Your task to perform on an android device: see creations saved in the google photos Image 0: 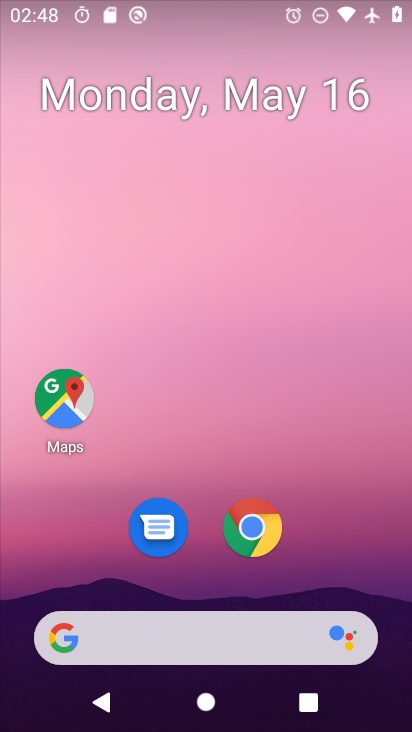
Step 0: drag from (145, 633) to (337, 189)
Your task to perform on an android device: see creations saved in the google photos Image 1: 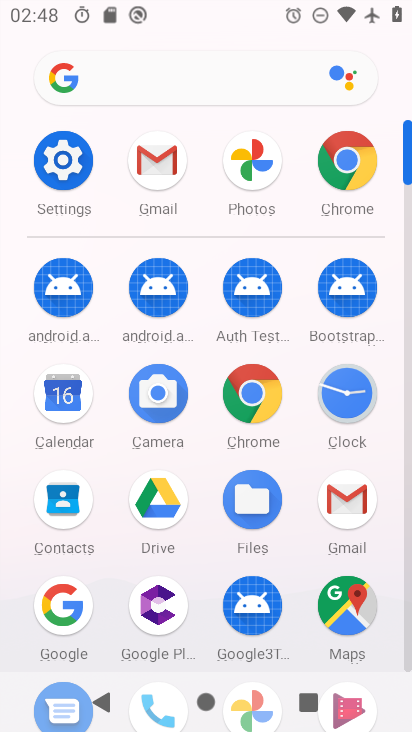
Step 1: drag from (208, 622) to (359, 273)
Your task to perform on an android device: see creations saved in the google photos Image 2: 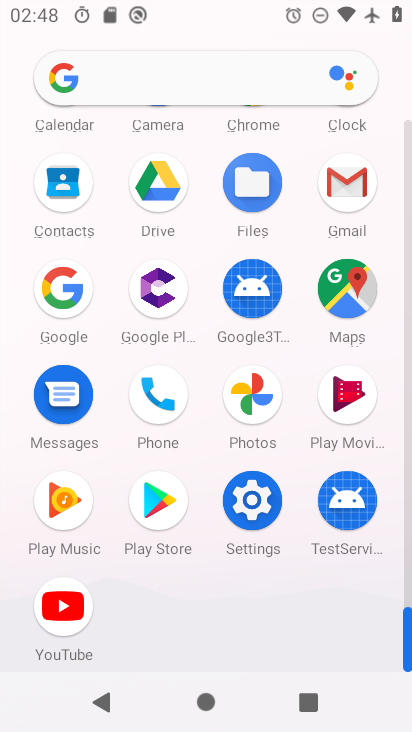
Step 2: click (254, 403)
Your task to perform on an android device: see creations saved in the google photos Image 3: 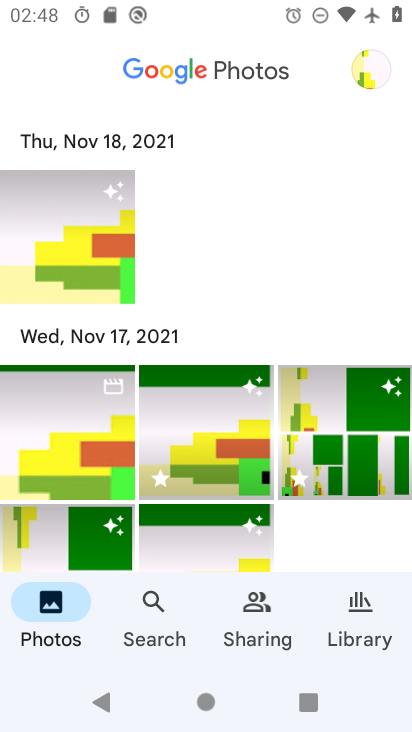
Step 3: click (147, 640)
Your task to perform on an android device: see creations saved in the google photos Image 4: 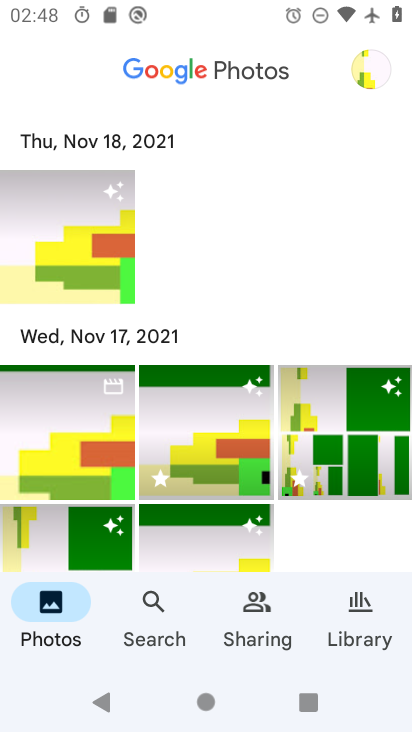
Step 4: click (156, 602)
Your task to perform on an android device: see creations saved in the google photos Image 5: 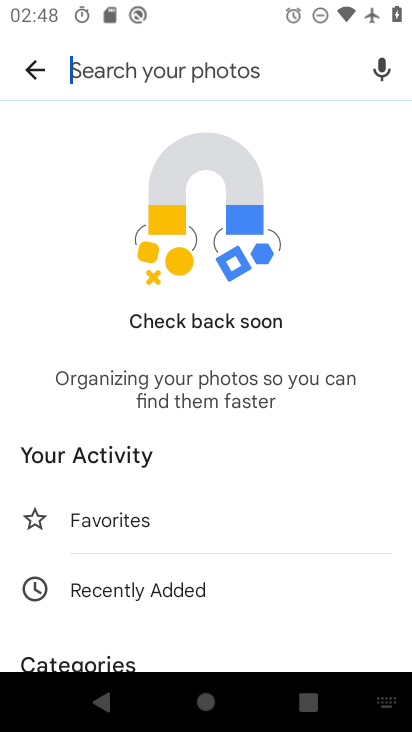
Step 5: drag from (198, 558) to (323, 102)
Your task to perform on an android device: see creations saved in the google photos Image 6: 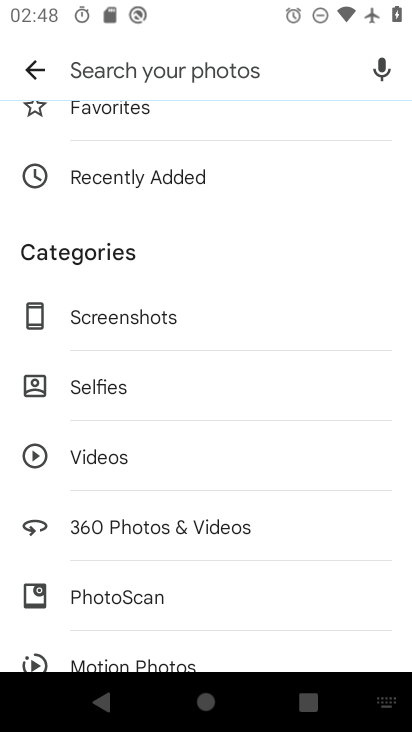
Step 6: drag from (161, 563) to (306, 160)
Your task to perform on an android device: see creations saved in the google photos Image 7: 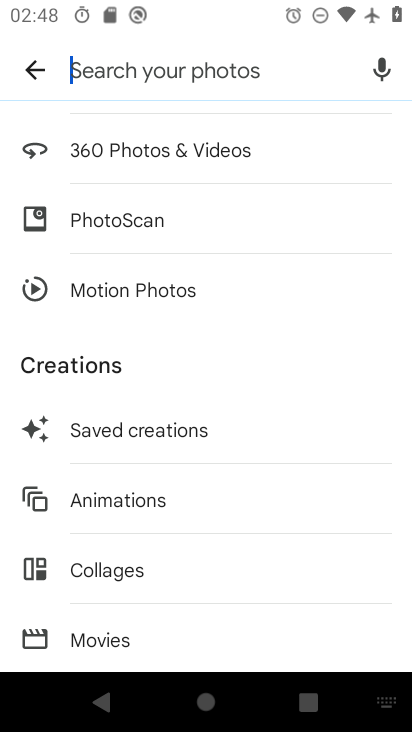
Step 7: click (148, 433)
Your task to perform on an android device: see creations saved in the google photos Image 8: 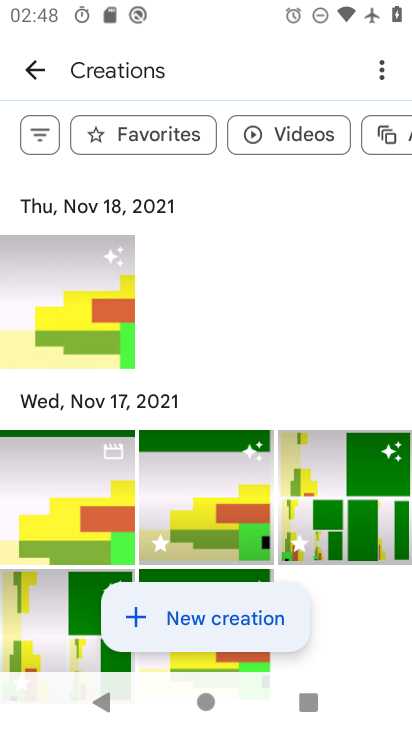
Step 8: task complete